Your task to perform on an android device: turn on location history Image 0: 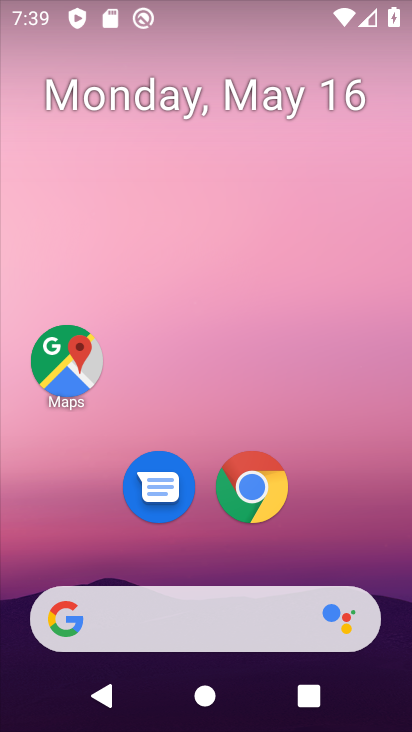
Step 0: drag from (317, 547) to (329, 50)
Your task to perform on an android device: turn on location history Image 1: 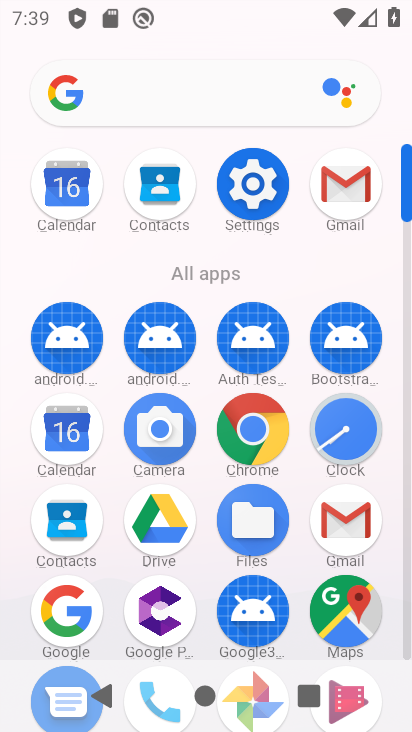
Step 1: click (245, 184)
Your task to perform on an android device: turn on location history Image 2: 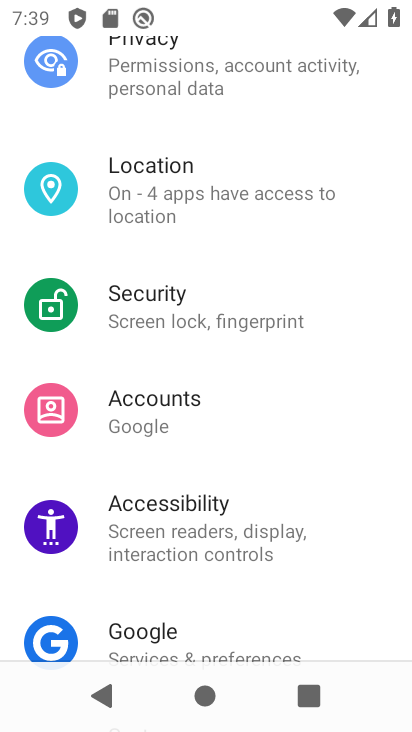
Step 2: click (231, 178)
Your task to perform on an android device: turn on location history Image 3: 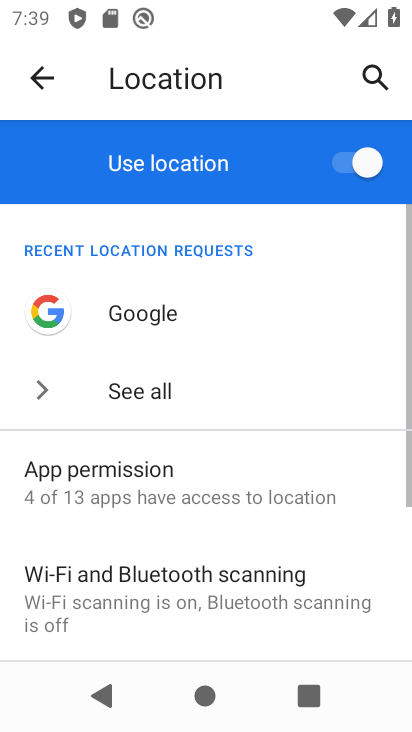
Step 3: drag from (202, 536) to (244, 273)
Your task to perform on an android device: turn on location history Image 4: 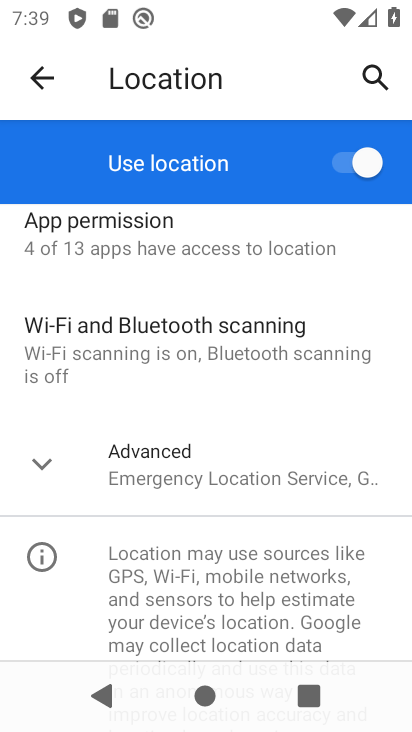
Step 4: click (47, 463)
Your task to perform on an android device: turn on location history Image 5: 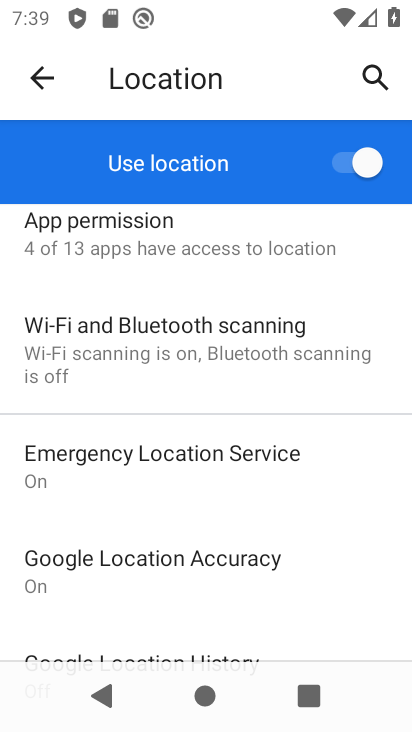
Step 5: drag from (161, 587) to (190, 463)
Your task to perform on an android device: turn on location history Image 6: 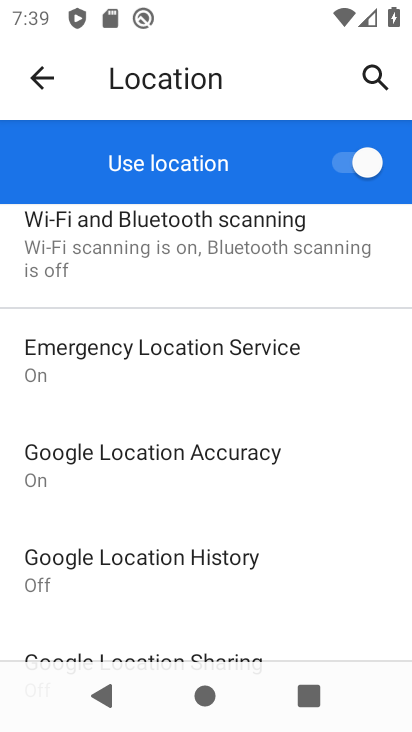
Step 6: click (170, 569)
Your task to perform on an android device: turn on location history Image 7: 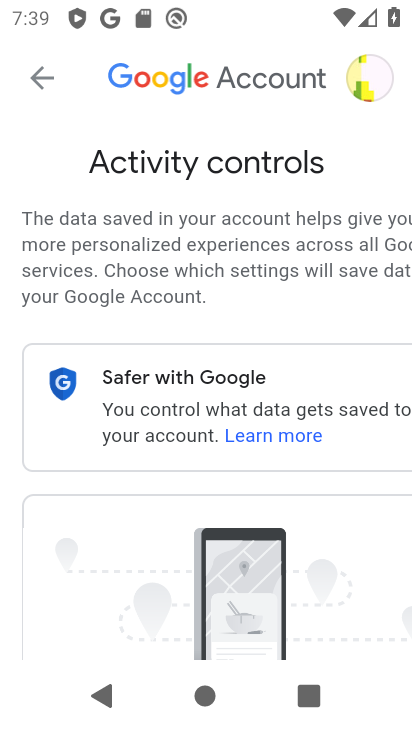
Step 7: drag from (342, 576) to (380, 97)
Your task to perform on an android device: turn on location history Image 8: 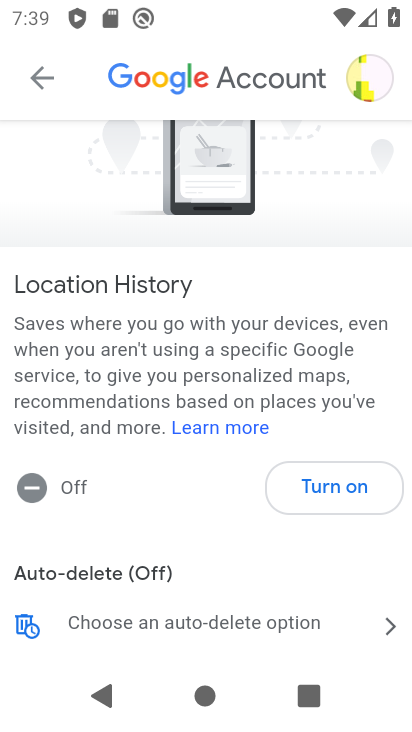
Step 8: click (339, 479)
Your task to perform on an android device: turn on location history Image 9: 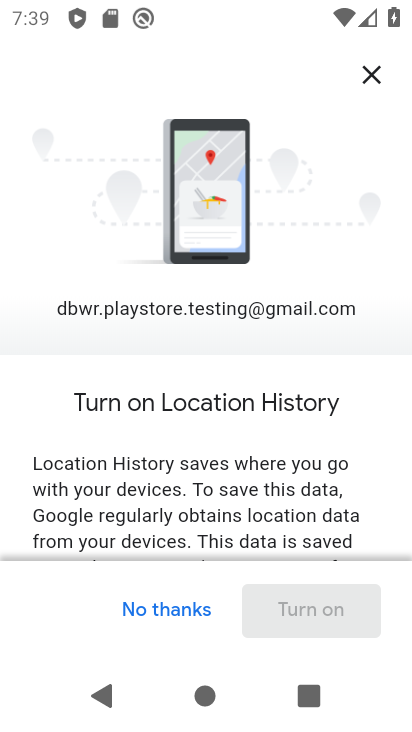
Step 9: click (293, 611)
Your task to perform on an android device: turn on location history Image 10: 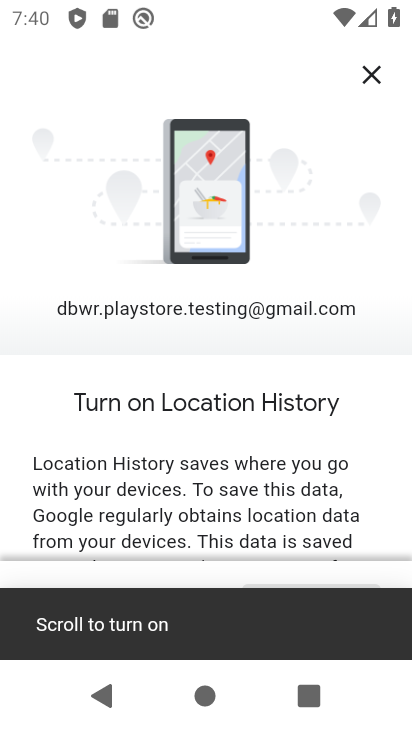
Step 10: drag from (316, 472) to (308, 206)
Your task to perform on an android device: turn on location history Image 11: 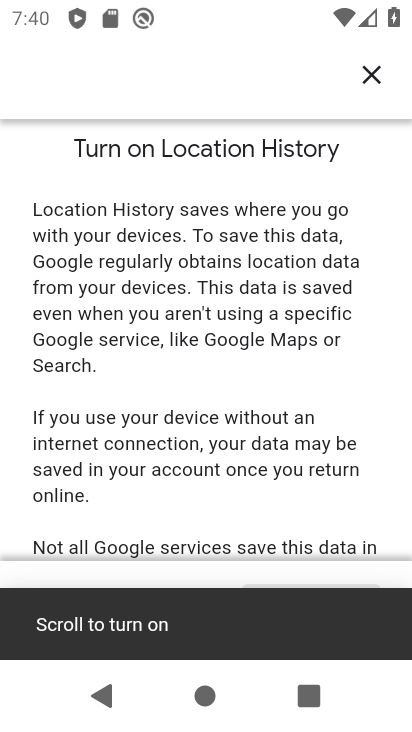
Step 11: drag from (276, 476) to (303, 150)
Your task to perform on an android device: turn on location history Image 12: 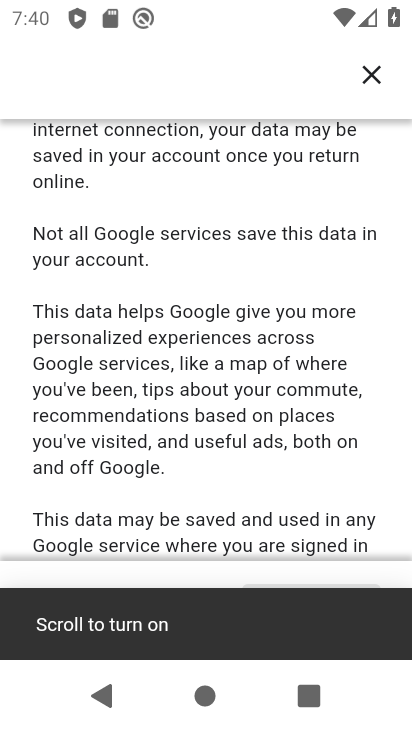
Step 12: drag from (254, 462) to (265, 177)
Your task to perform on an android device: turn on location history Image 13: 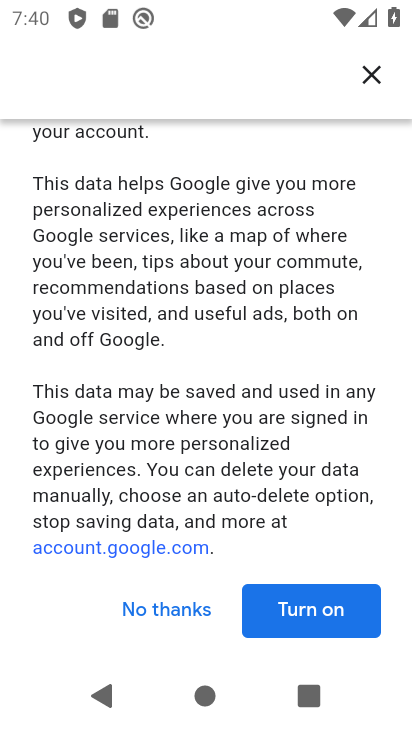
Step 13: click (317, 617)
Your task to perform on an android device: turn on location history Image 14: 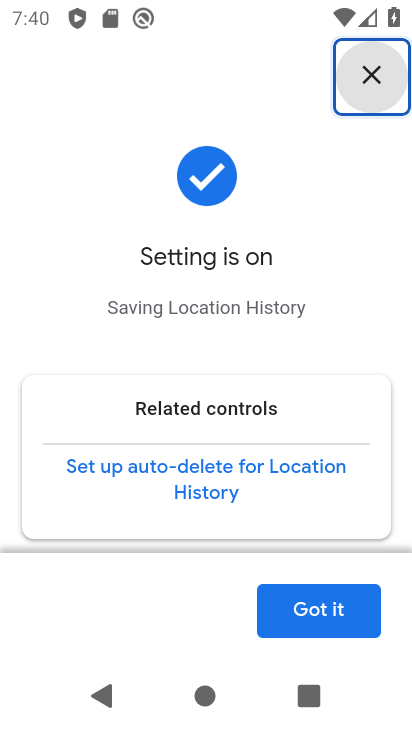
Step 14: click (317, 617)
Your task to perform on an android device: turn on location history Image 15: 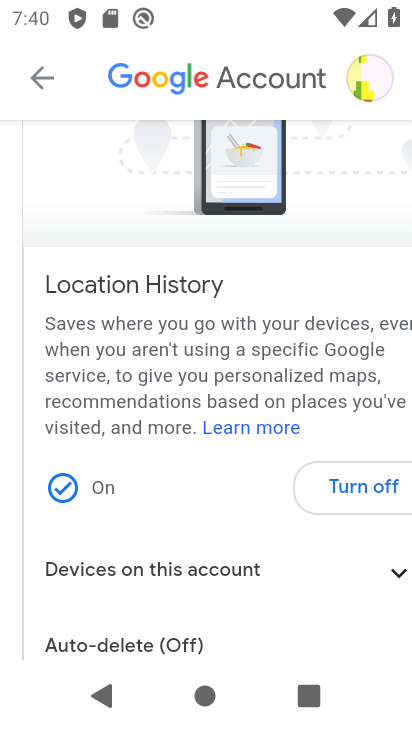
Step 15: task complete